Your task to perform on an android device: toggle notification dots Image 0: 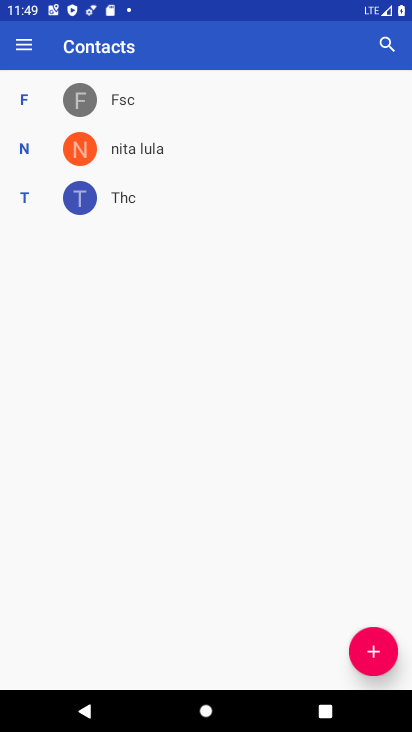
Step 0: press home button
Your task to perform on an android device: toggle notification dots Image 1: 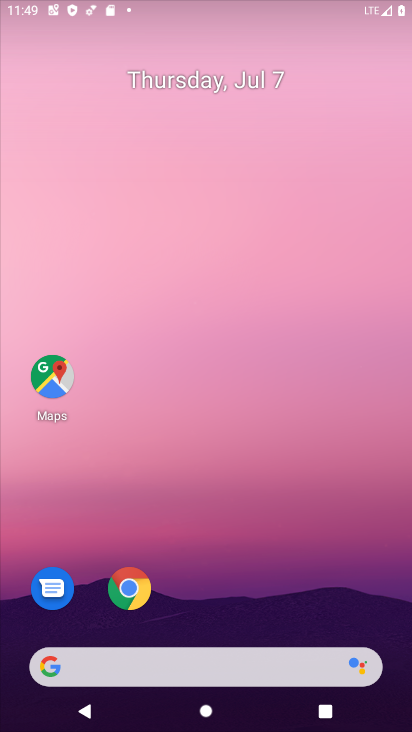
Step 1: drag from (221, 598) to (295, 45)
Your task to perform on an android device: toggle notification dots Image 2: 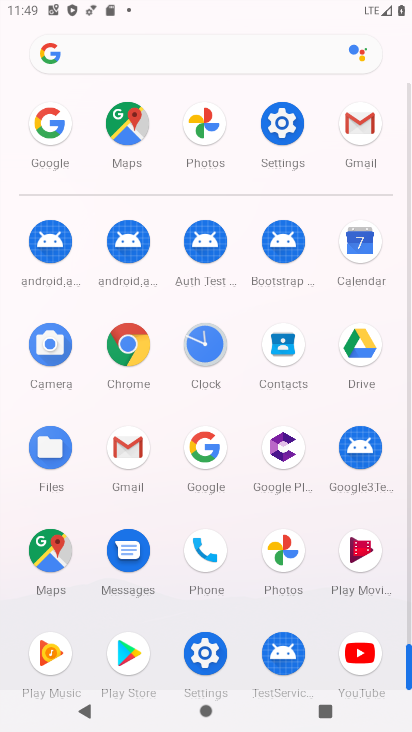
Step 2: click (276, 123)
Your task to perform on an android device: toggle notification dots Image 3: 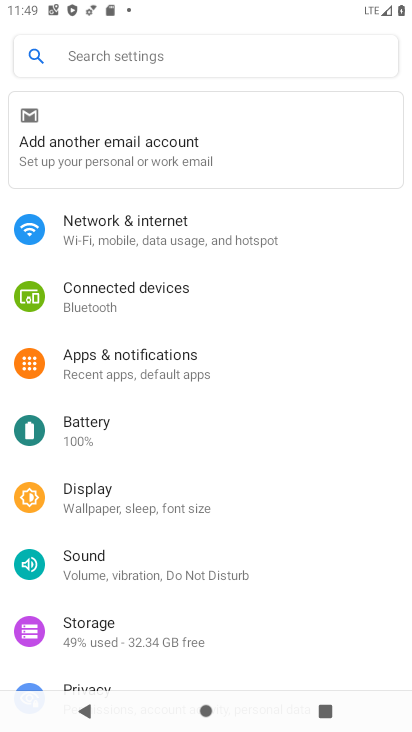
Step 3: click (181, 353)
Your task to perform on an android device: toggle notification dots Image 4: 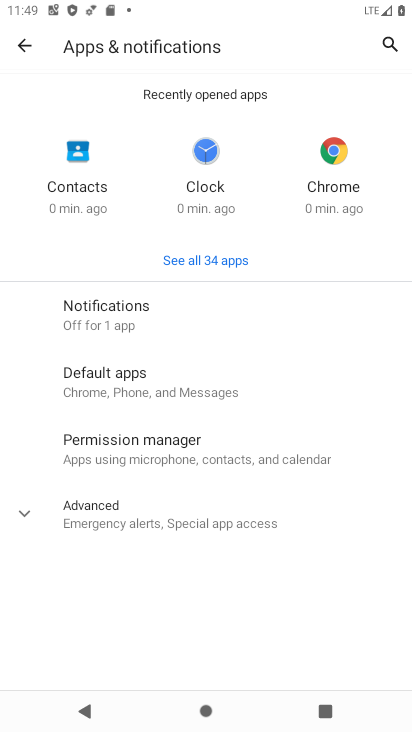
Step 4: click (139, 313)
Your task to perform on an android device: toggle notification dots Image 5: 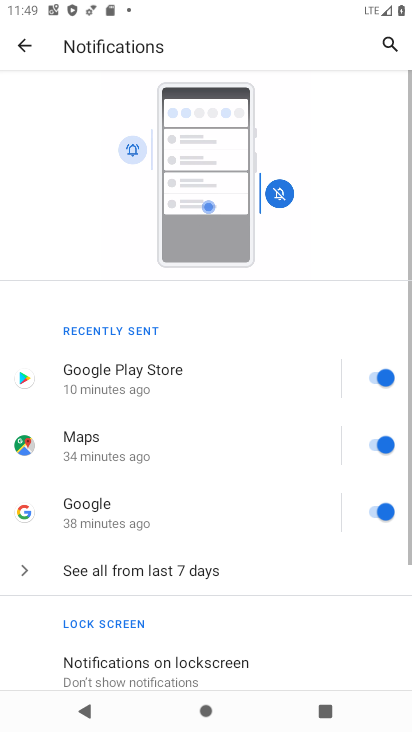
Step 5: drag from (145, 586) to (173, 270)
Your task to perform on an android device: toggle notification dots Image 6: 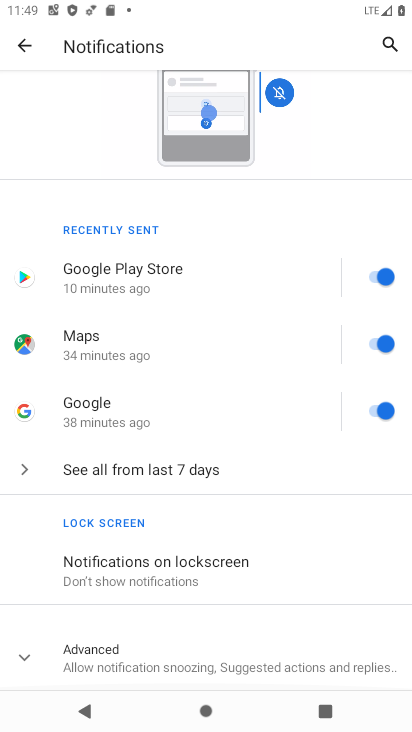
Step 6: click (75, 632)
Your task to perform on an android device: toggle notification dots Image 7: 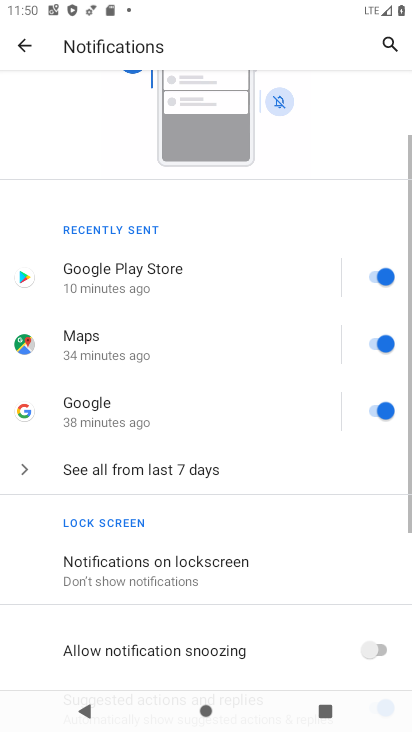
Step 7: drag from (226, 620) to (261, 197)
Your task to perform on an android device: toggle notification dots Image 8: 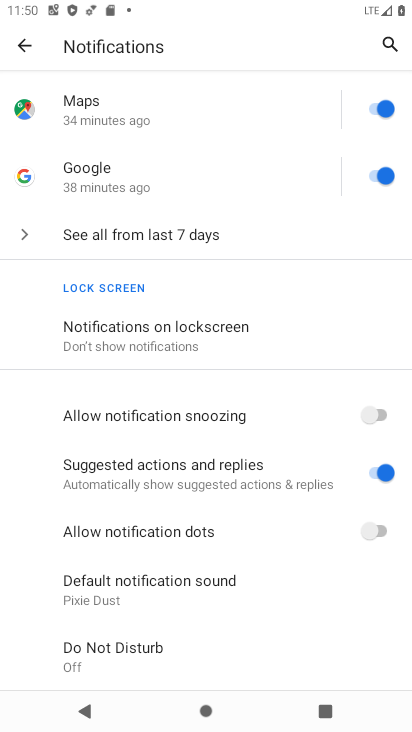
Step 8: click (376, 529)
Your task to perform on an android device: toggle notification dots Image 9: 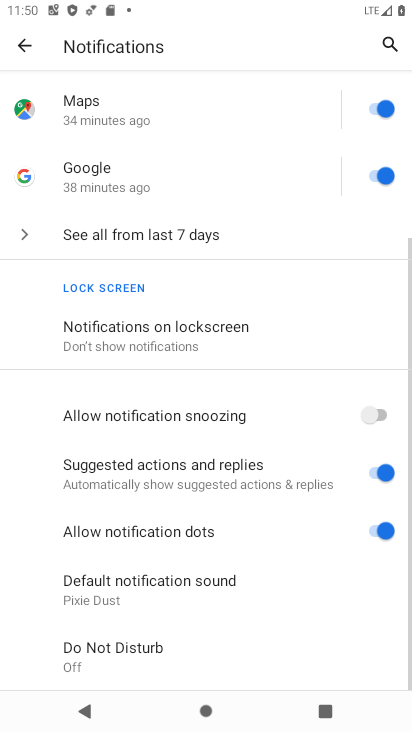
Step 9: task complete